Your task to perform on an android device: Open display settings Image 0: 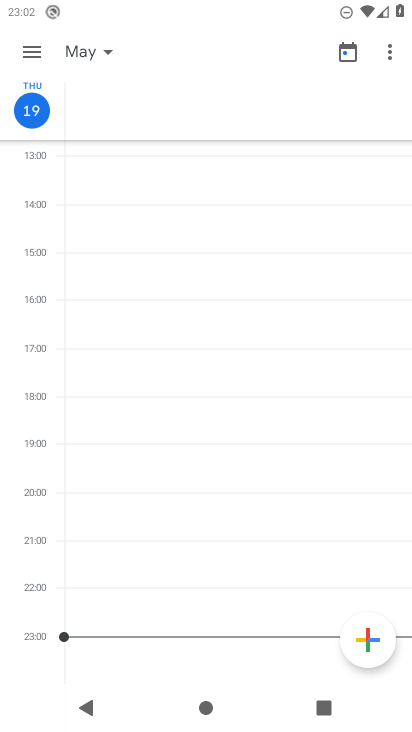
Step 0: press home button
Your task to perform on an android device: Open display settings Image 1: 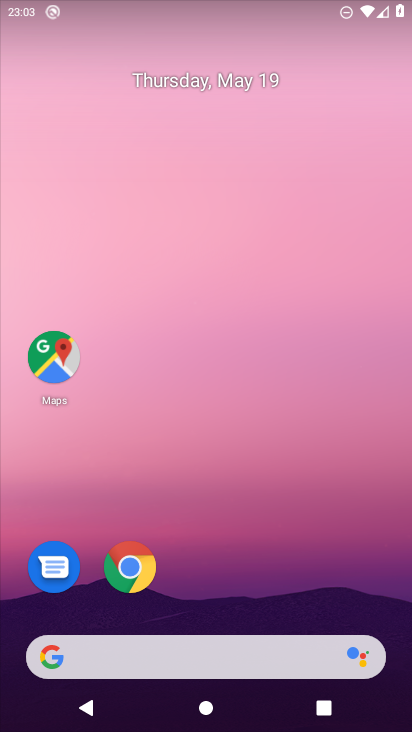
Step 1: drag from (209, 614) to (250, 99)
Your task to perform on an android device: Open display settings Image 2: 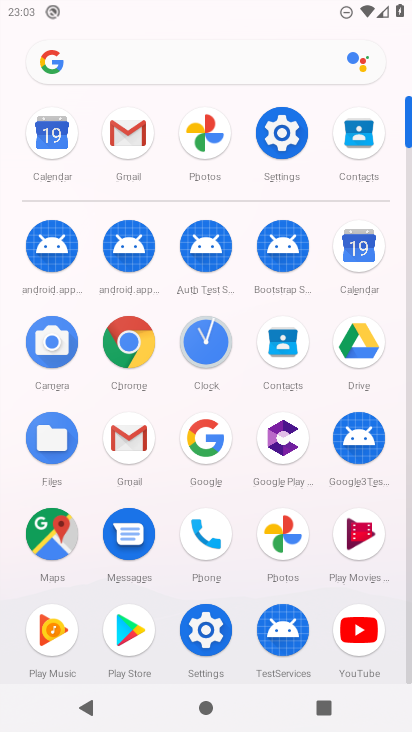
Step 2: click (281, 126)
Your task to perform on an android device: Open display settings Image 3: 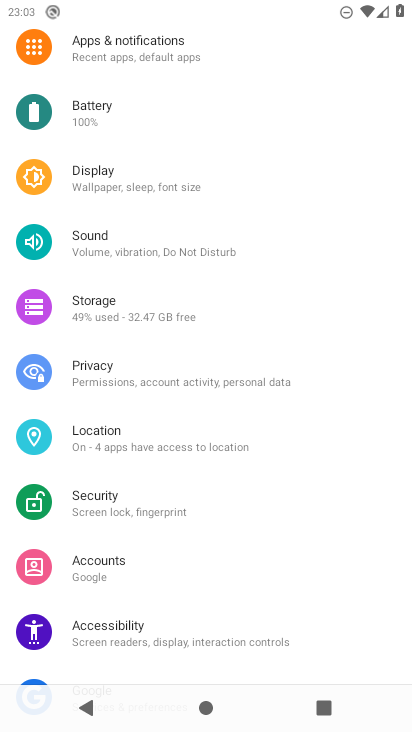
Step 3: click (126, 177)
Your task to perform on an android device: Open display settings Image 4: 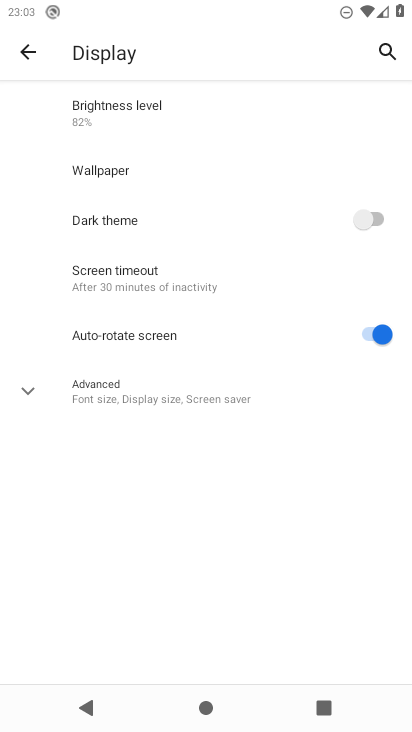
Step 4: click (53, 393)
Your task to perform on an android device: Open display settings Image 5: 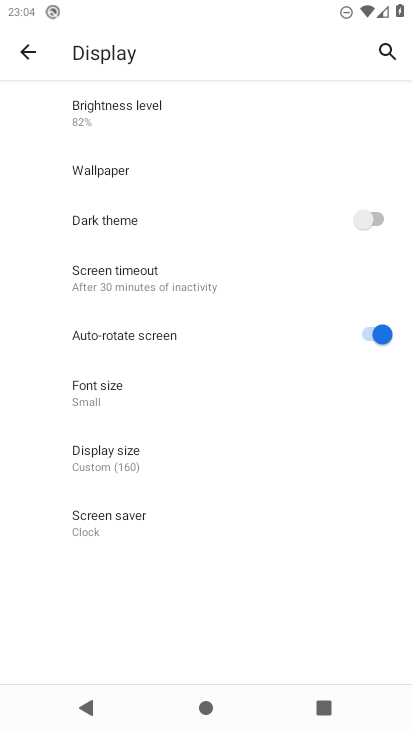
Step 5: task complete